Your task to perform on an android device: Search for good BBQ restaurants Image 0: 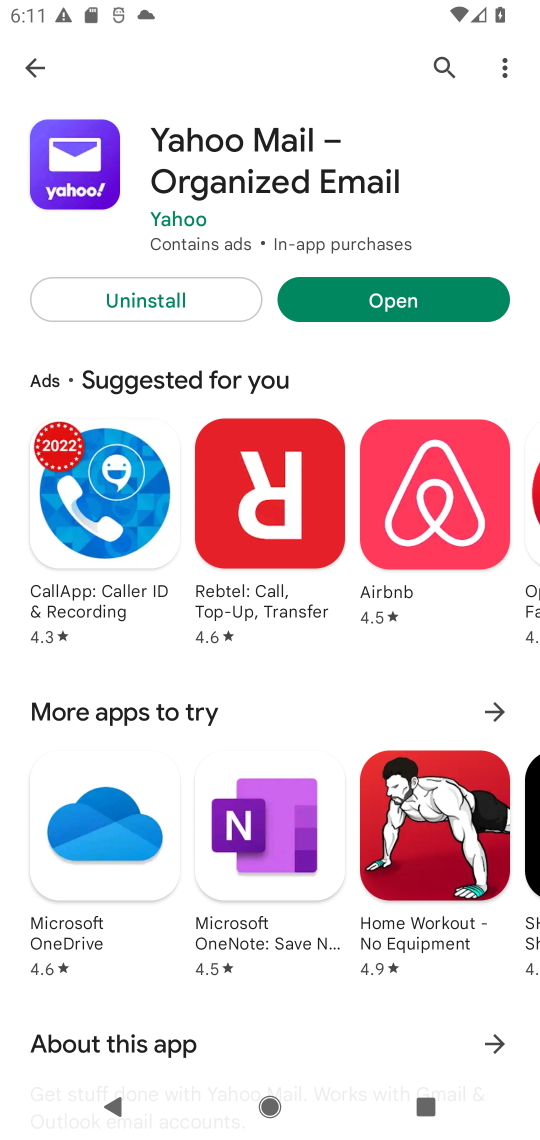
Step 0: press home button
Your task to perform on an android device: Search for good BBQ restaurants Image 1: 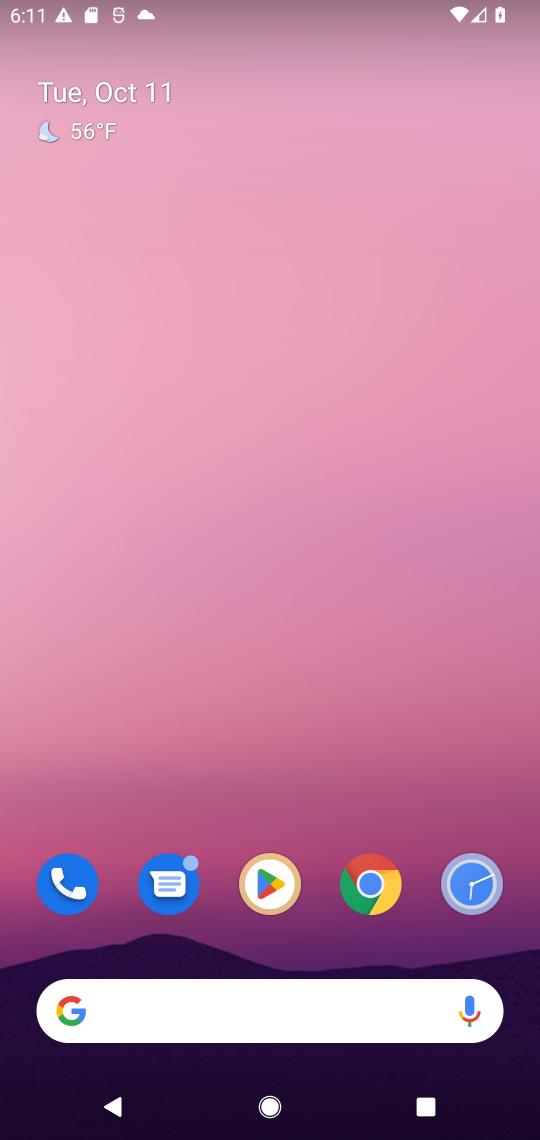
Step 1: drag from (326, 961) to (371, 195)
Your task to perform on an android device: Search for good BBQ restaurants Image 2: 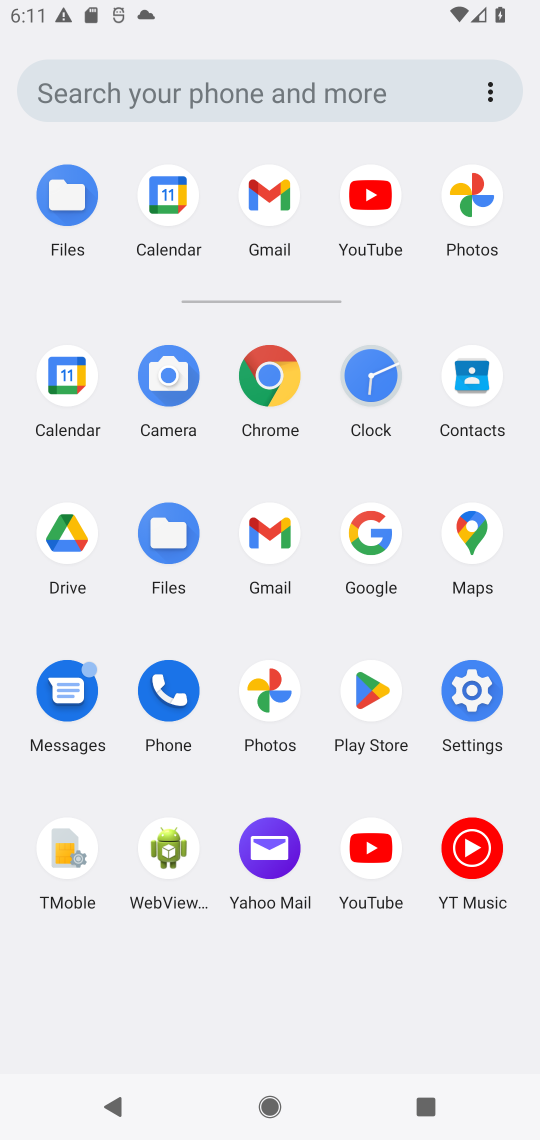
Step 2: click (374, 540)
Your task to perform on an android device: Search for good BBQ restaurants Image 3: 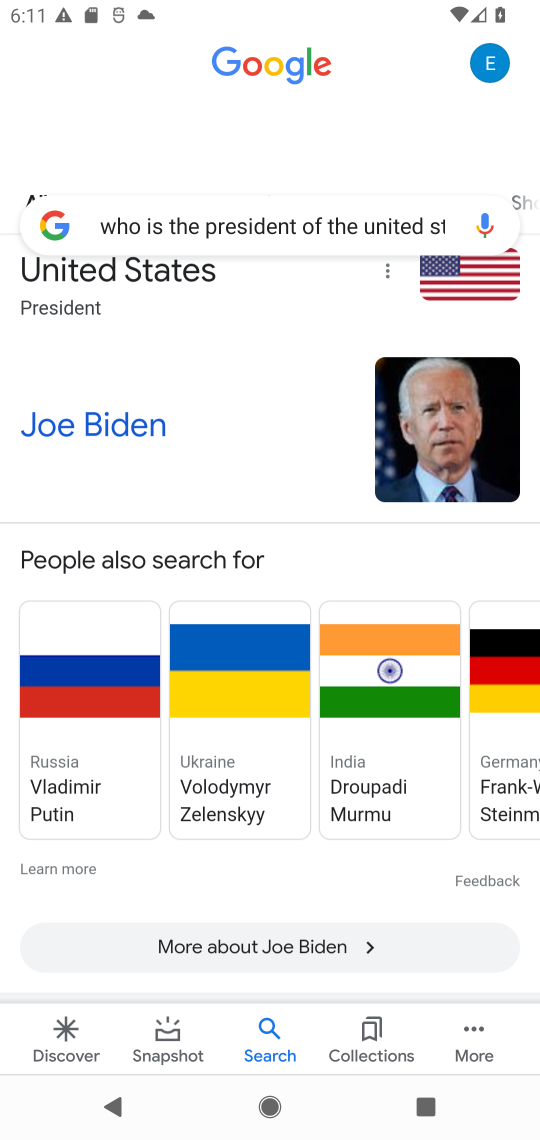
Step 3: click (360, 227)
Your task to perform on an android device: Search for good BBQ restaurants Image 4: 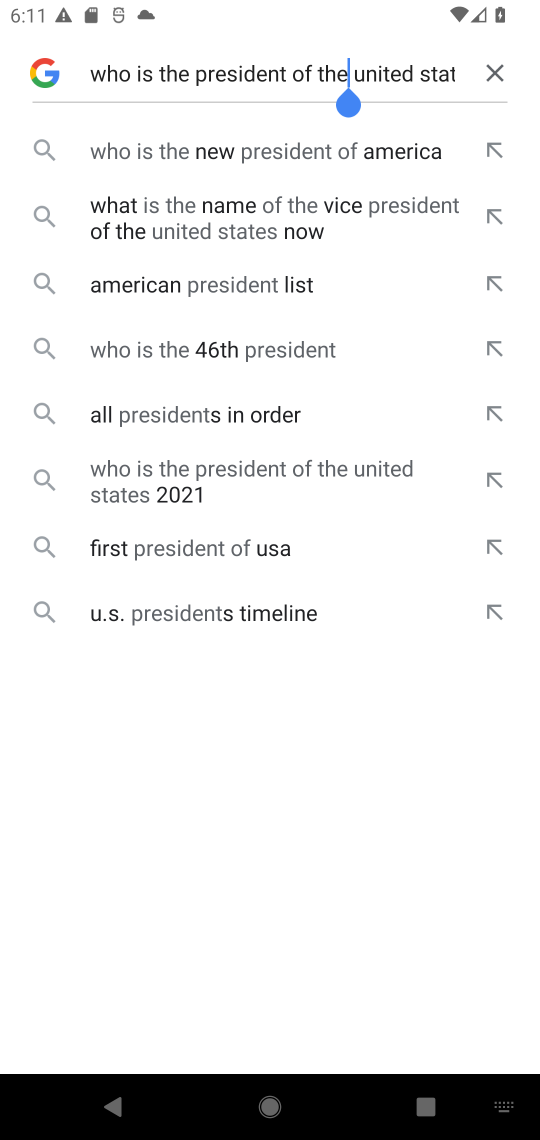
Step 4: click (494, 71)
Your task to perform on an android device: Search for good BBQ restaurants Image 5: 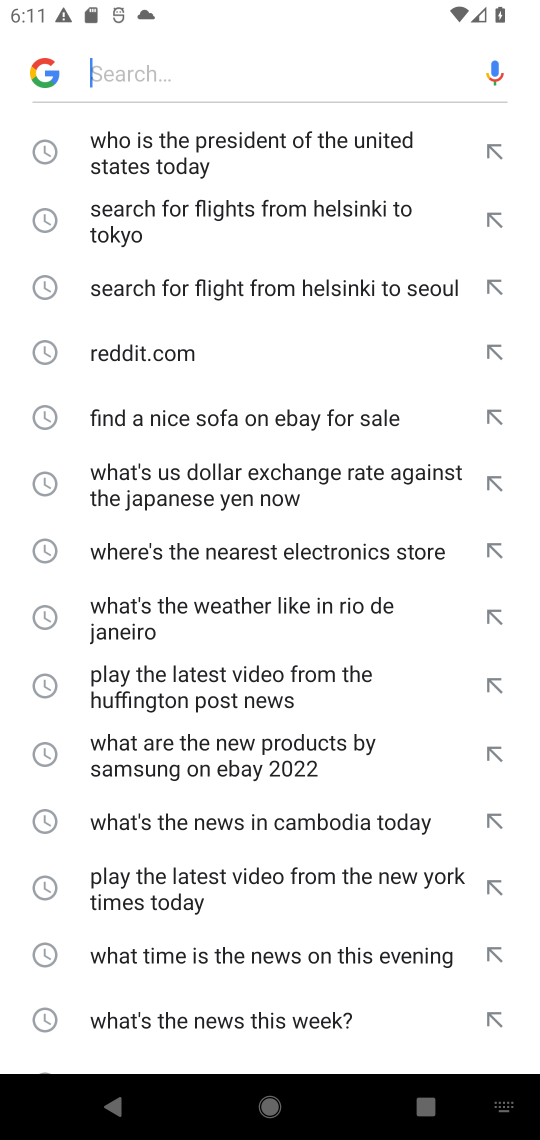
Step 5: type "Search for good BBQ restaurants"
Your task to perform on an android device: Search for good BBQ restaurants Image 6: 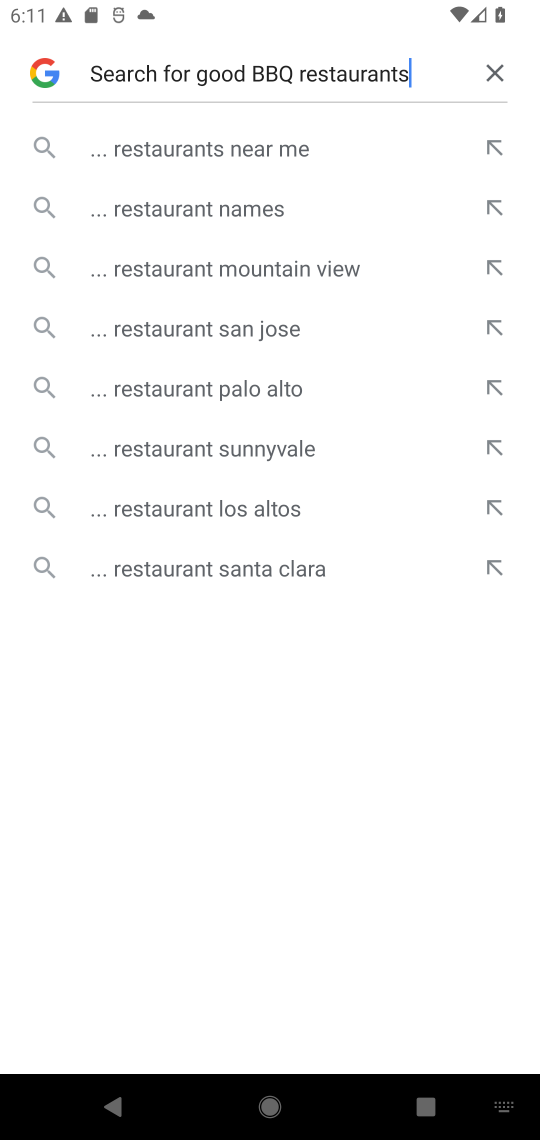
Step 6: type ""
Your task to perform on an android device: Search for good BBQ restaurants Image 7: 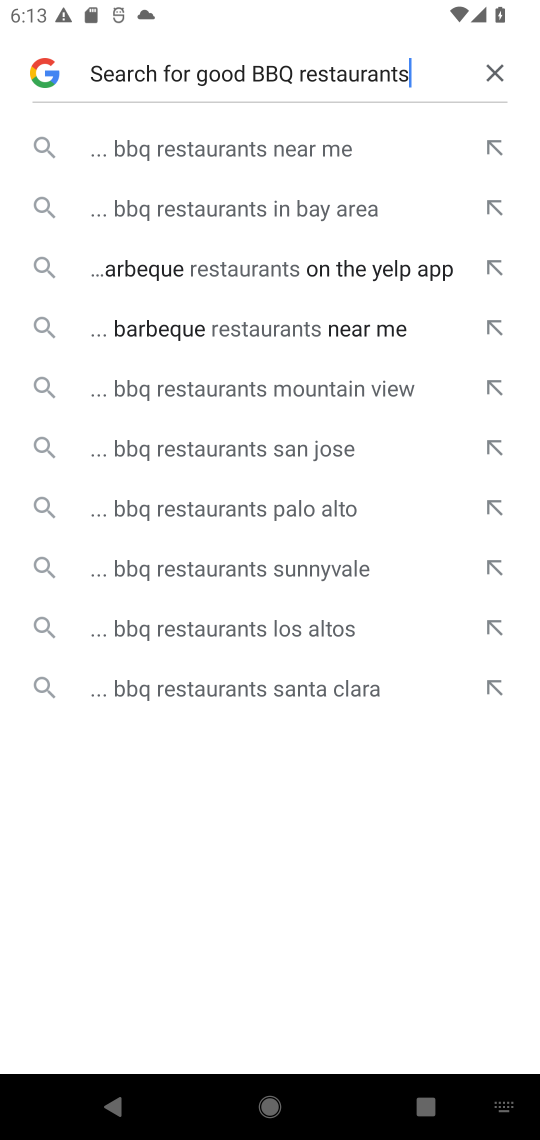
Step 7: click (283, 154)
Your task to perform on an android device: Search for good BBQ restaurants Image 8: 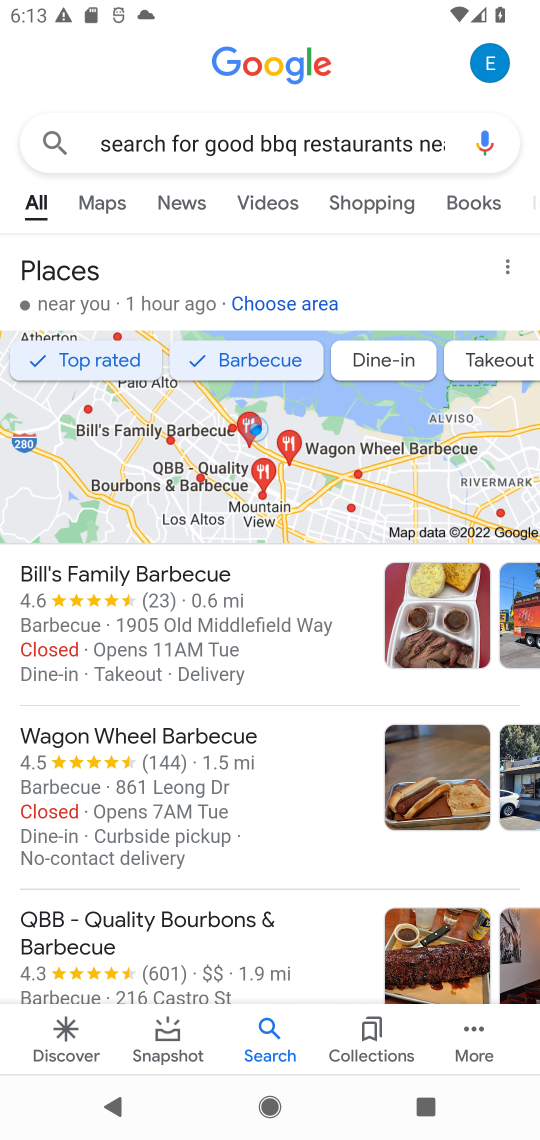
Step 8: task complete